Your task to perform on an android device: turn off location history Image 0: 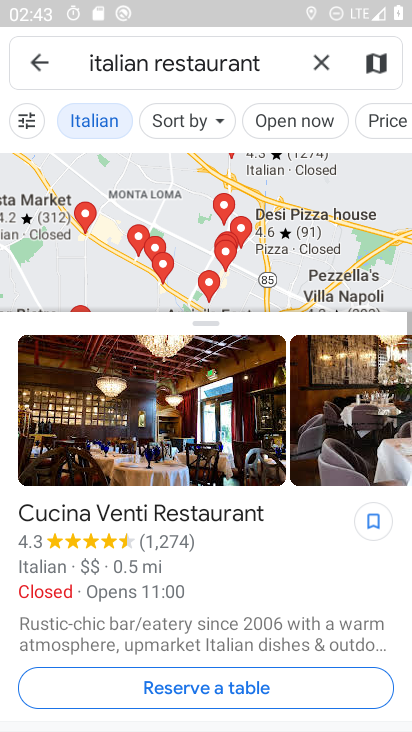
Step 0: press home button
Your task to perform on an android device: turn off location history Image 1: 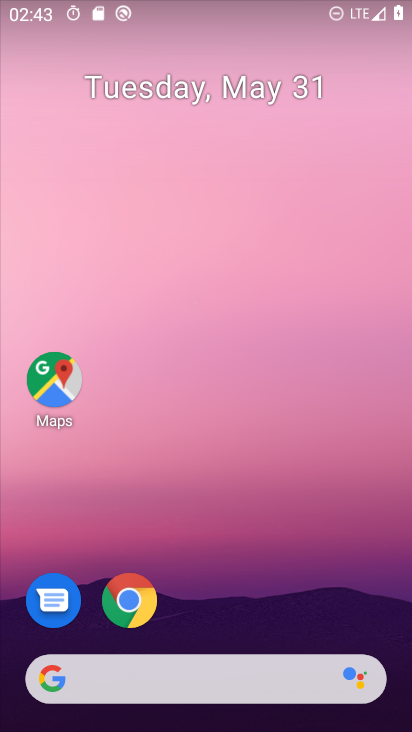
Step 1: drag from (212, 724) to (200, 15)
Your task to perform on an android device: turn off location history Image 2: 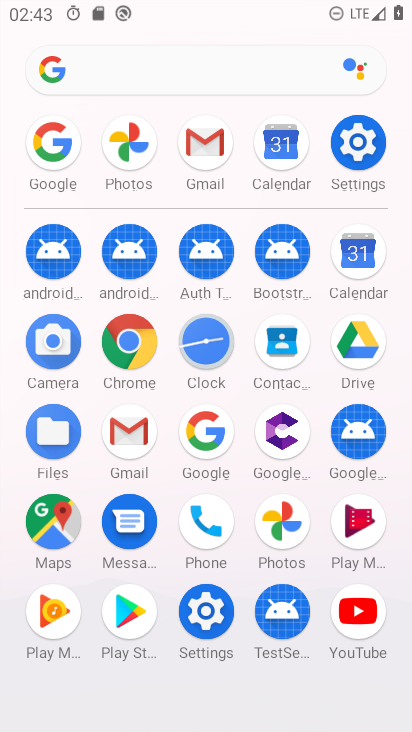
Step 2: click (352, 143)
Your task to perform on an android device: turn off location history Image 3: 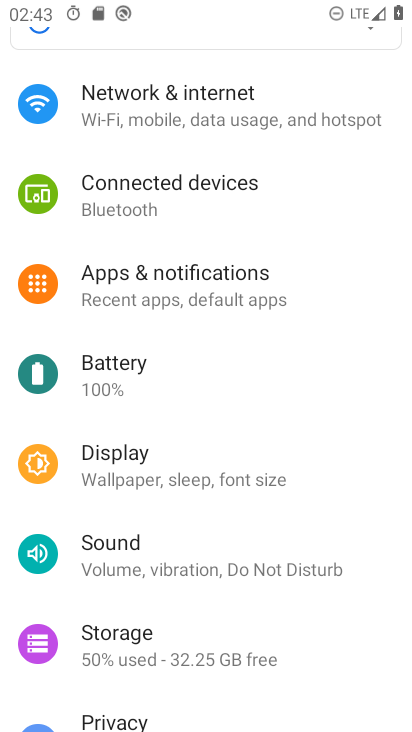
Step 3: drag from (158, 690) to (150, 337)
Your task to perform on an android device: turn off location history Image 4: 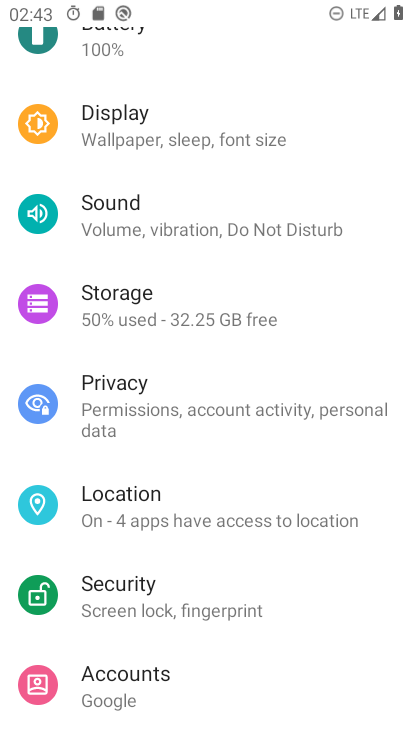
Step 4: click (109, 505)
Your task to perform on an android device: turn off location history Image 5: 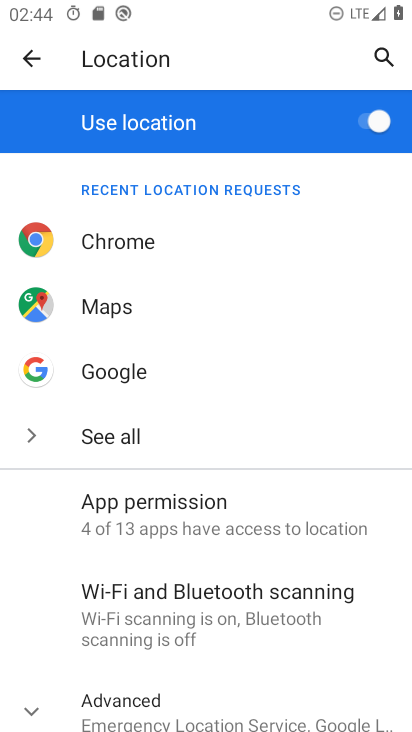
Step 5: drag from (175, 659) to (195, 305)
Your task to perform on an android device: turn off location history Image 6: 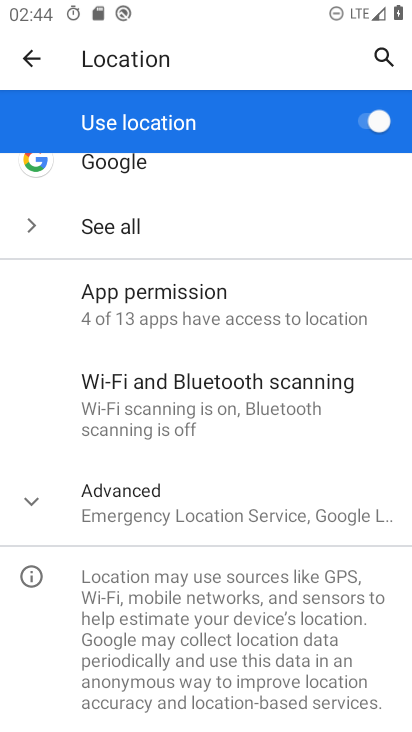
Step 6: click (136, 514)
Your task to perform on an android device: turn off location history Image 7: 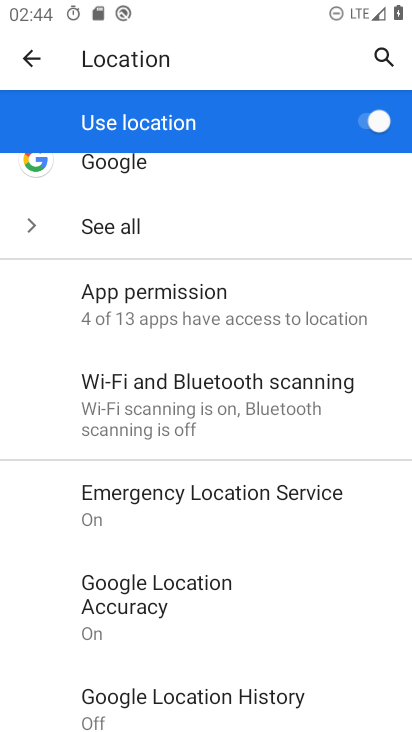
Step 7: click (235, 697)
Your task to perform on an android device: turn off location history Image 8: 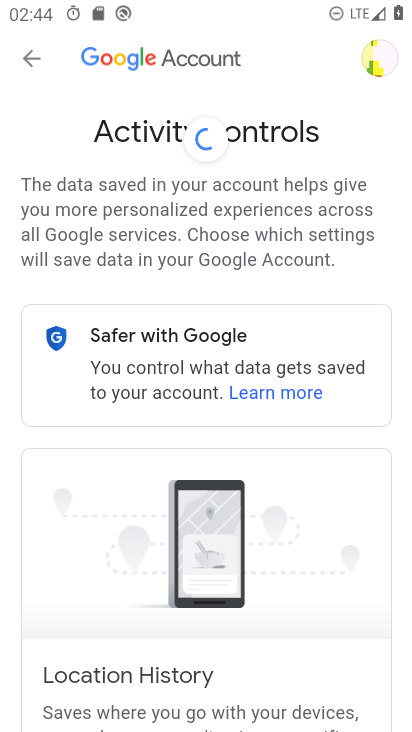
Step 8: task complete